Your task to perform on an android device: Show me the alarms in the clock app Image 0: 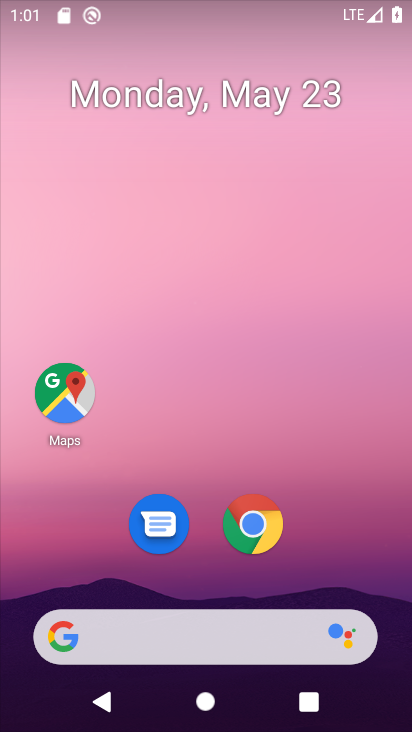
Step 0: drag from (242, 419) to (180, 1)
Your task to perform on an android device: Show me the alarms in the clock app Image 1: 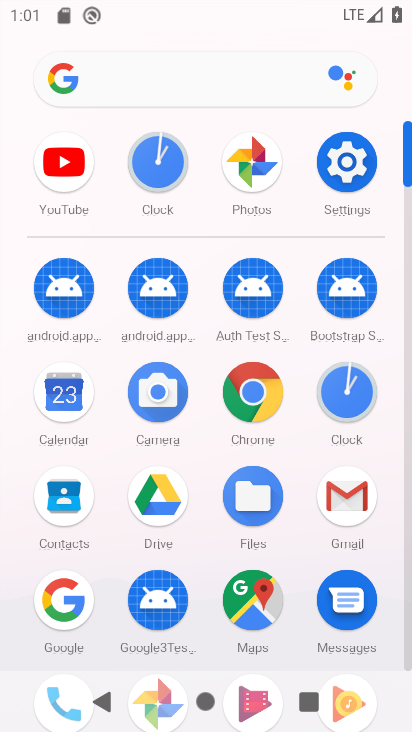
Step 1: click (164, 153)
Your task to perform on an android device: Show me the alarms in the clock app Image 2: 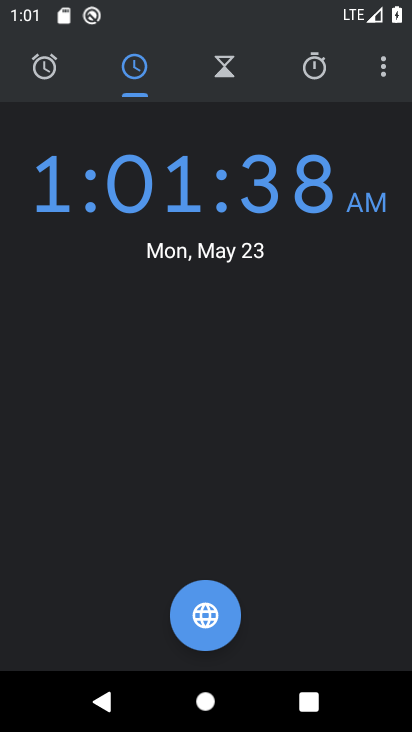
Step 2: click (48, 67)
Your task to perform on an android device: Show me the alarms in the clock app Image 3: 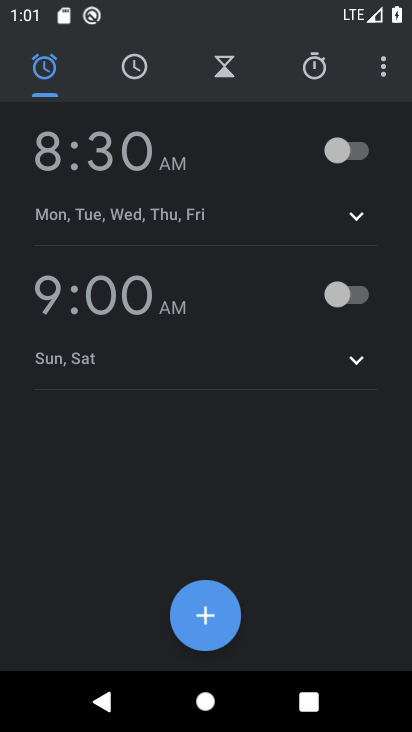
Step 3: task complete